Your task to perform on an android device: Search for "alienware area 51" on target, select the first entry, add it to the cart, then select checkout. Image 0: 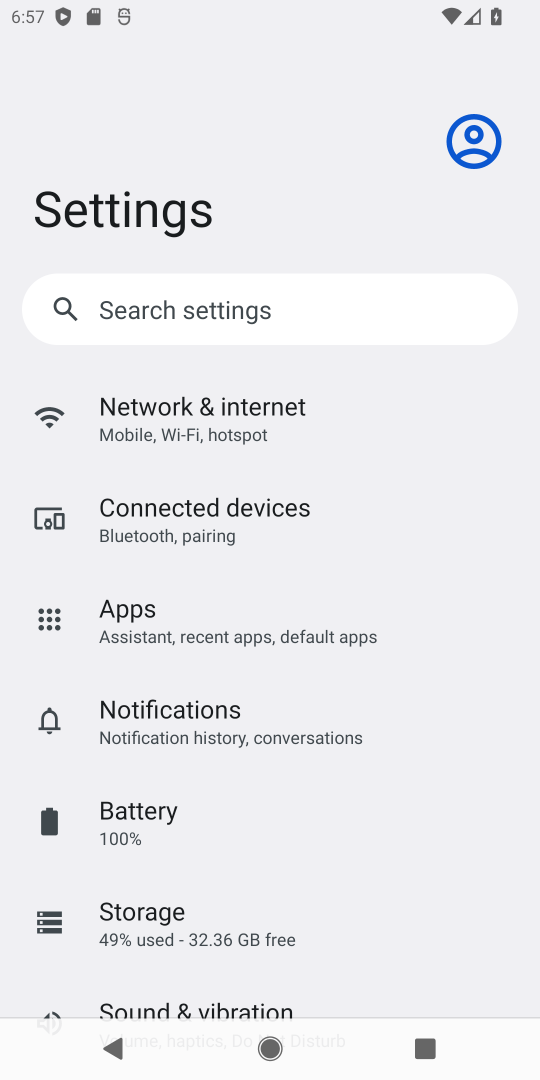
Step 0: press home button
Your task to perform on an android device: Search for "alienware area 51" on target, select the first entry, add it to the cart, then select checkout. Image 1: 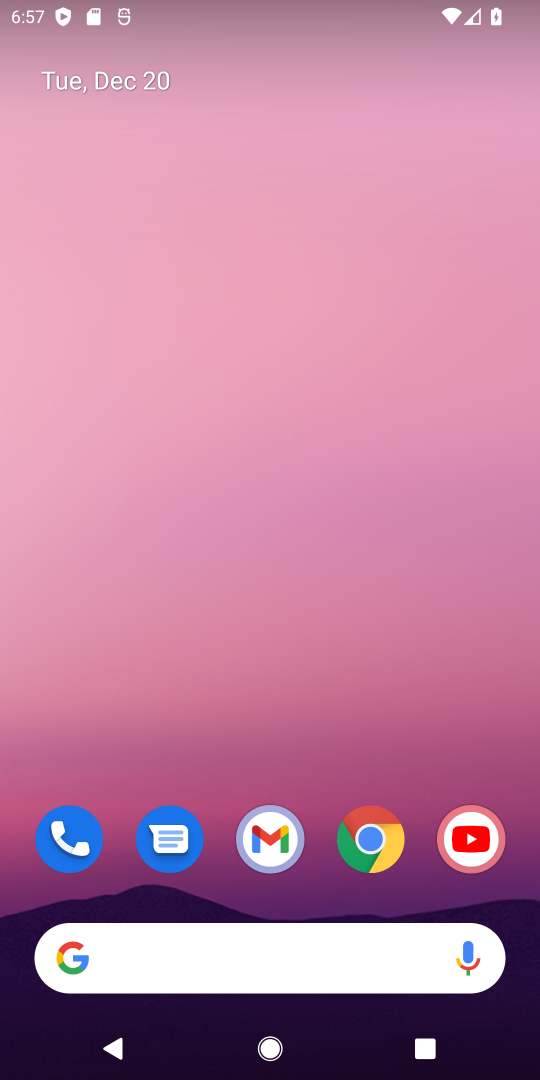
Step 1: click (247, 970)
Your task to perform on an android device: Search for "alienware area 51" on target, select the first entry, add it to the cart, then select checkout. Image 2: 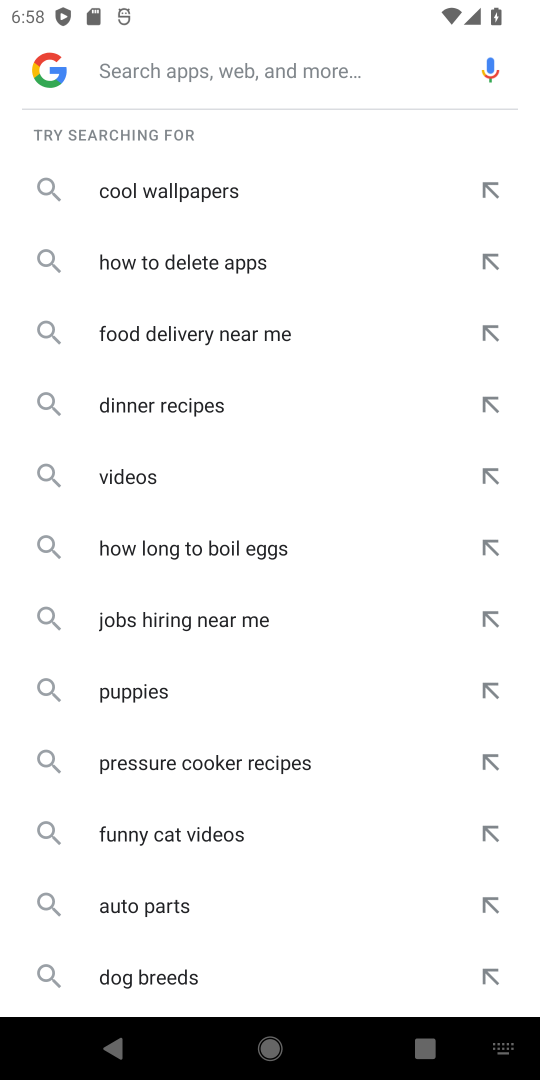
Step 2: press home button
Your task to perform on an android device: Search for "alienware area 51" on target, select the first entry, add it to the cart, then select checkout. Image 3: 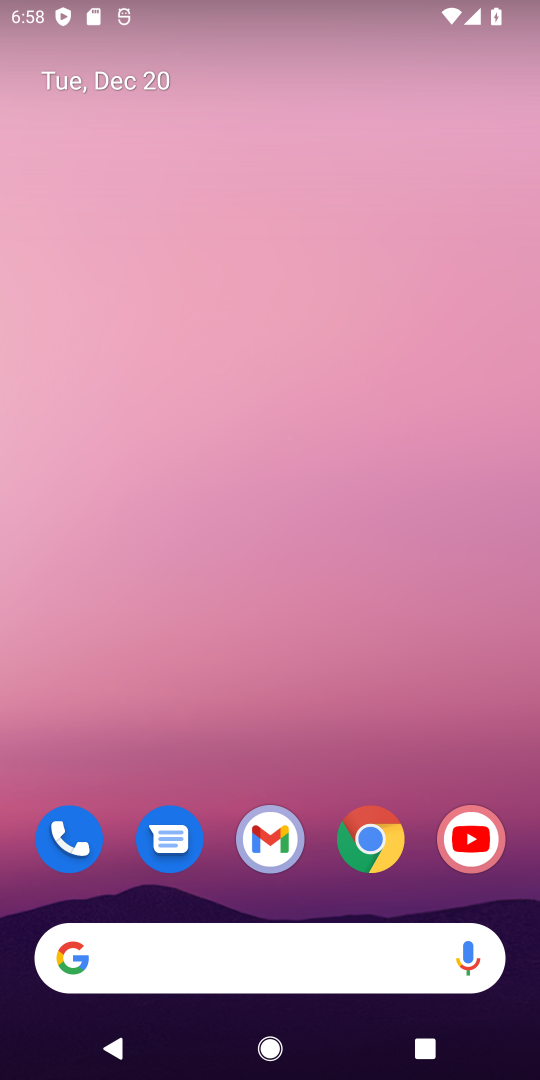
Step 3: drag from (246, 884) to (105, 180)
Your task to perform on an android device: Search for "alienware area 51" on target, select the first entry, add it to the cart, then select checkout. Image 4: 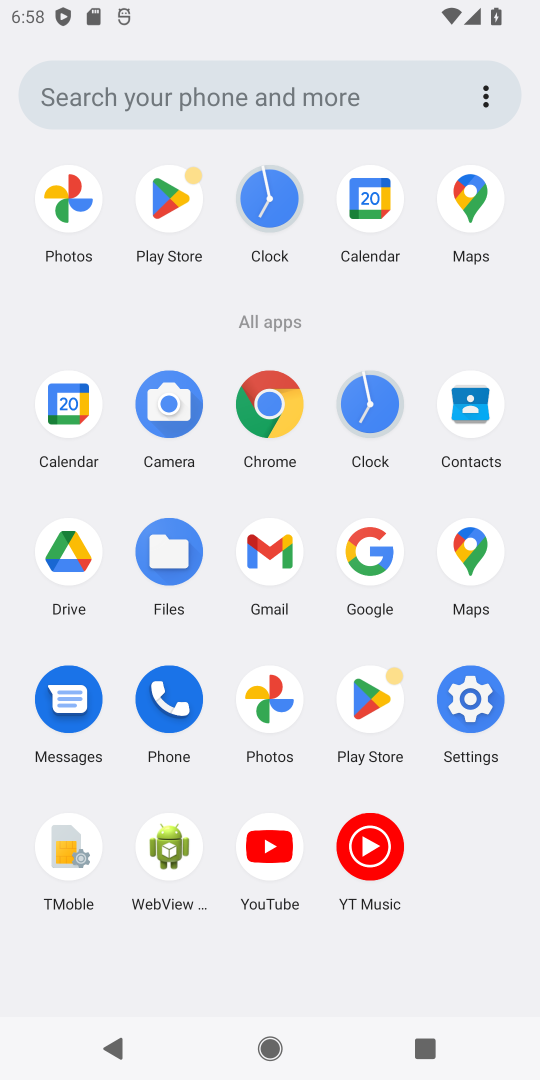
Step 4: click (353, 532)
Your task to perform on an android device: Search for "alienware area 51" on target, select the first entry, add it to the cart, then select checkout. Image 5: 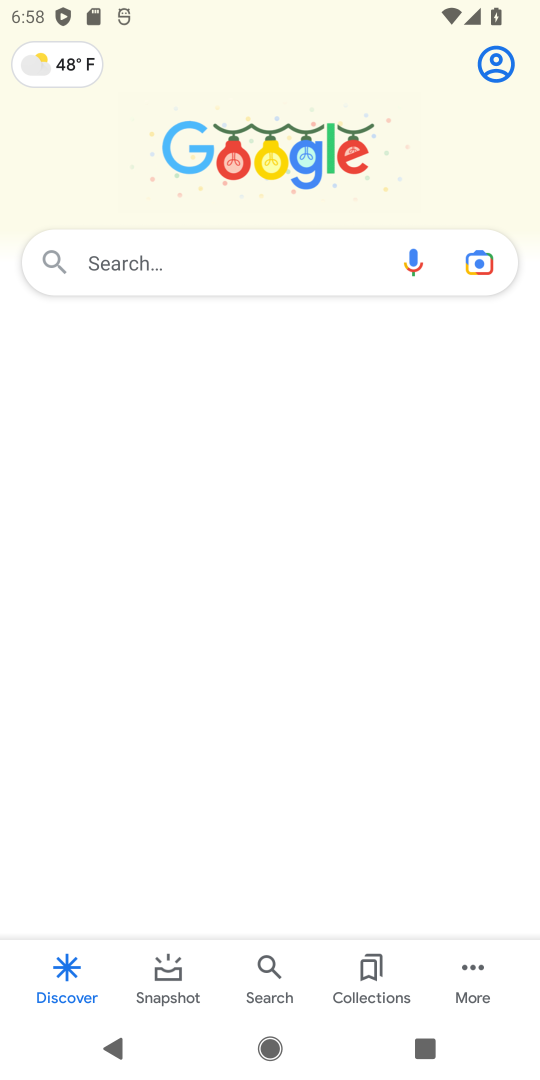
Step 5: click (163, 266)
Your task to perform on an android device: Search for "alienware area 51" on target, select the first entry, add it to the cart, then select checkout. Image 6: 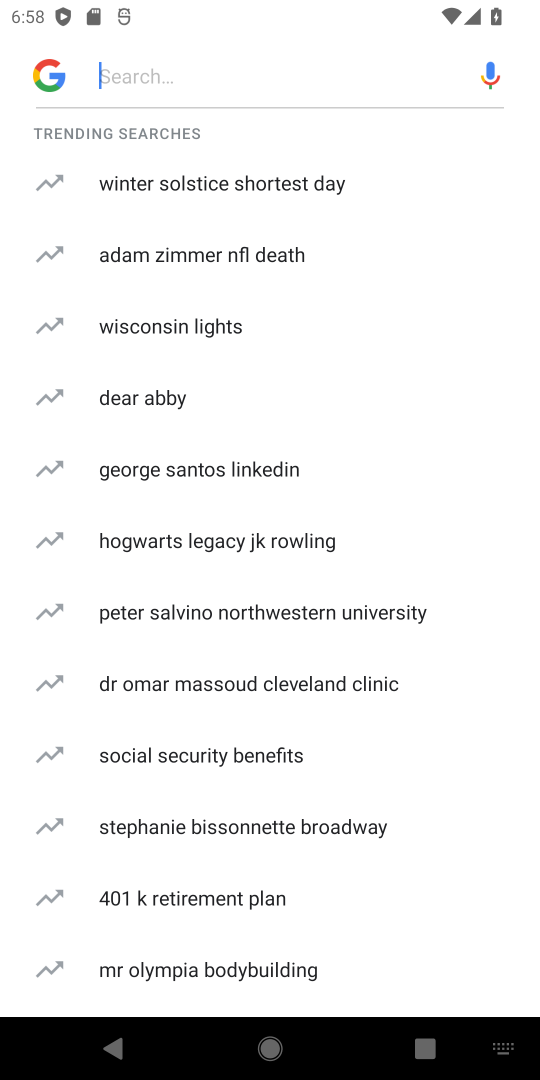
Step 6: type "target"
Your task to perform on an android device: Search for "alienware area 51" on target, select the first entry, add it to the cart, then select checkout. Image 7: 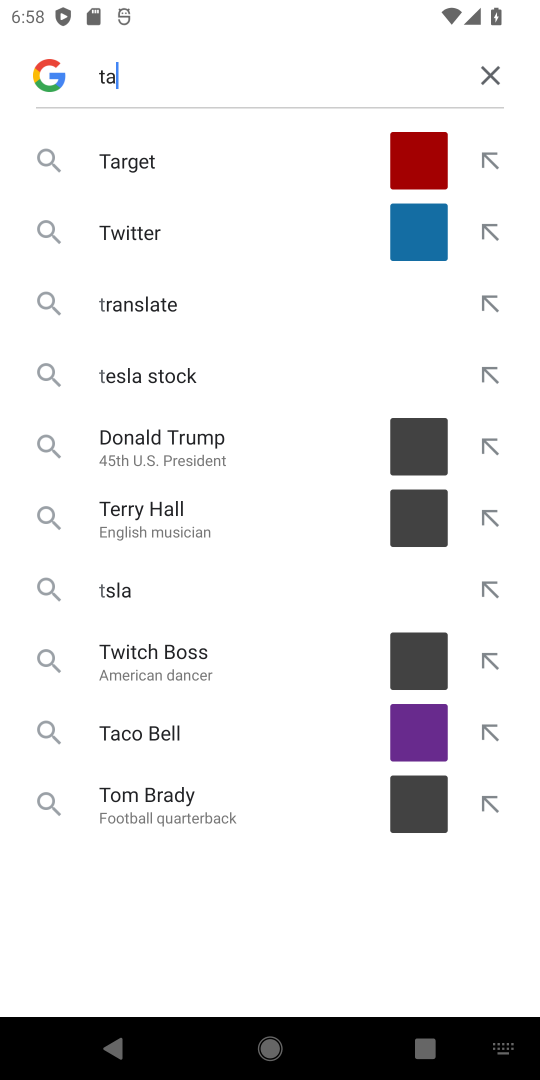
Step 7: type ""
Your task to perform on an android device: Search for "alienware area 51" on target, select the first entry, add it to the cart, then select checkout. Image 8: 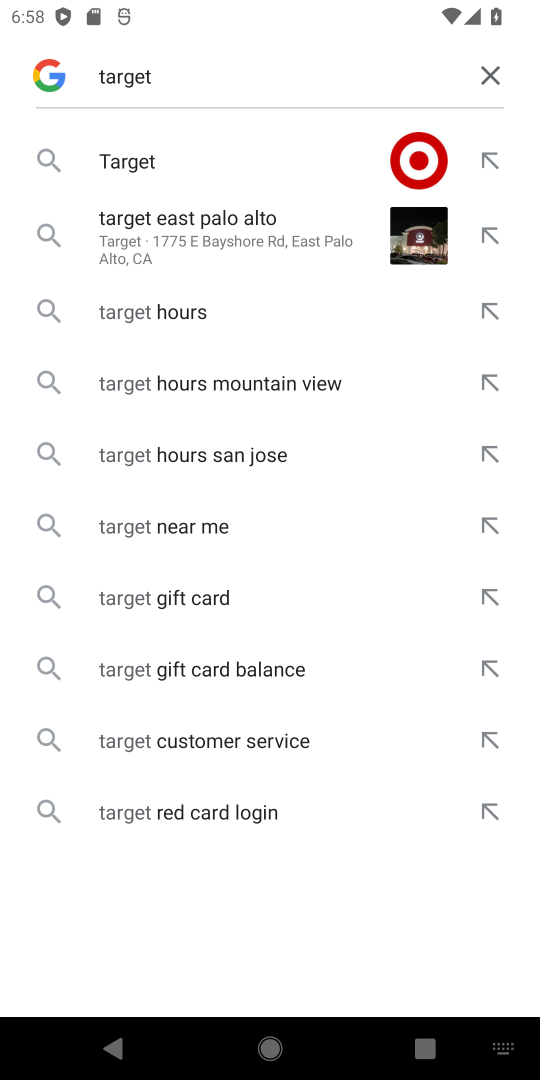
Step 8: click (151, 183)
Your task to perform on an android device: Search for "alienware area 51" on target, select the first entry, add it to the cart, then select checkout. Image 9: 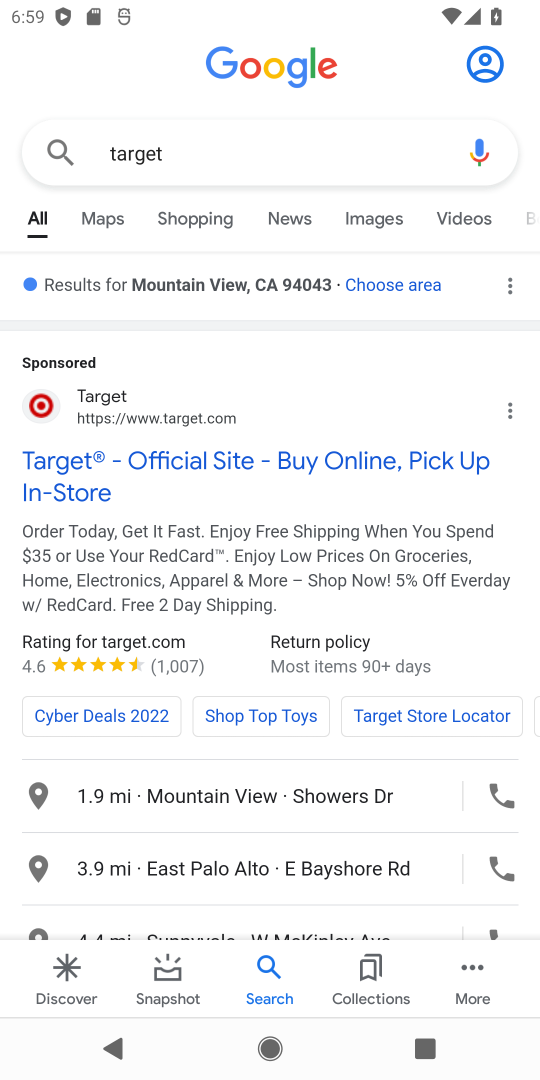
Step 9: click (109, 456)
Your task to perform on an android device: Search for "alienware area 51" on target, select the first entry, add it to the cart, then select checkout. Image 10: 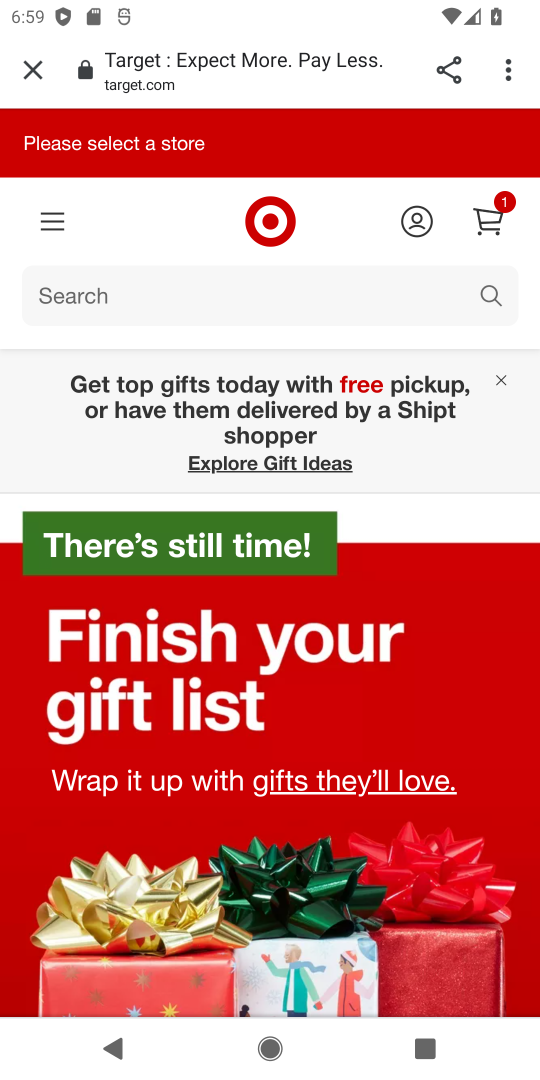
Step 10: click (235, 311)
Your task to perform on an android device: Search for "alienware area 51" on target, select the first entry, add it to the cart, then select checkout. Image 11: 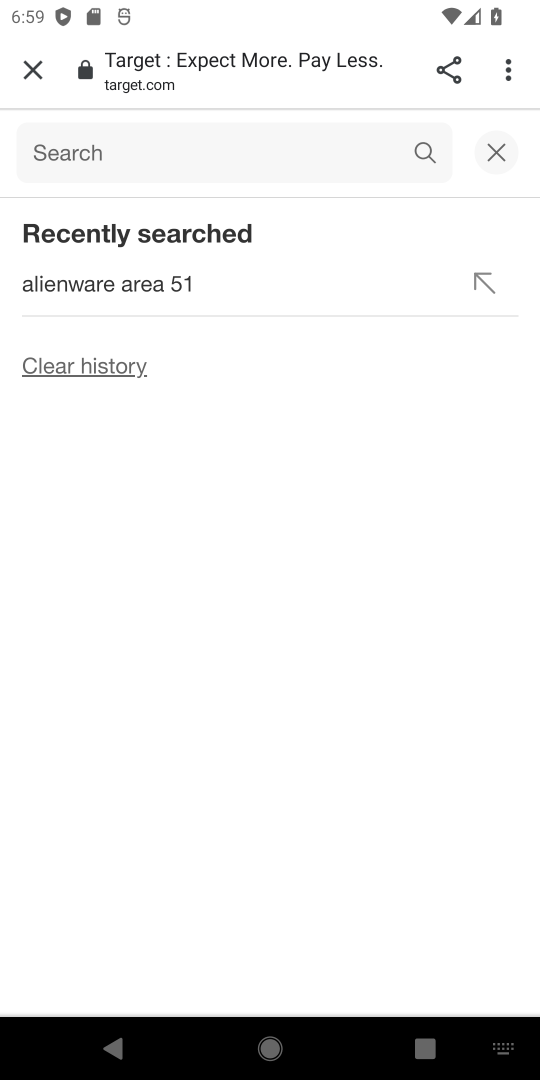
Step 11: type "alienware area 51""
Your task to perform on an android device: Search for "alienware area 51" on target, select the first entry, add it to the cart, then select checkout. Image 12: 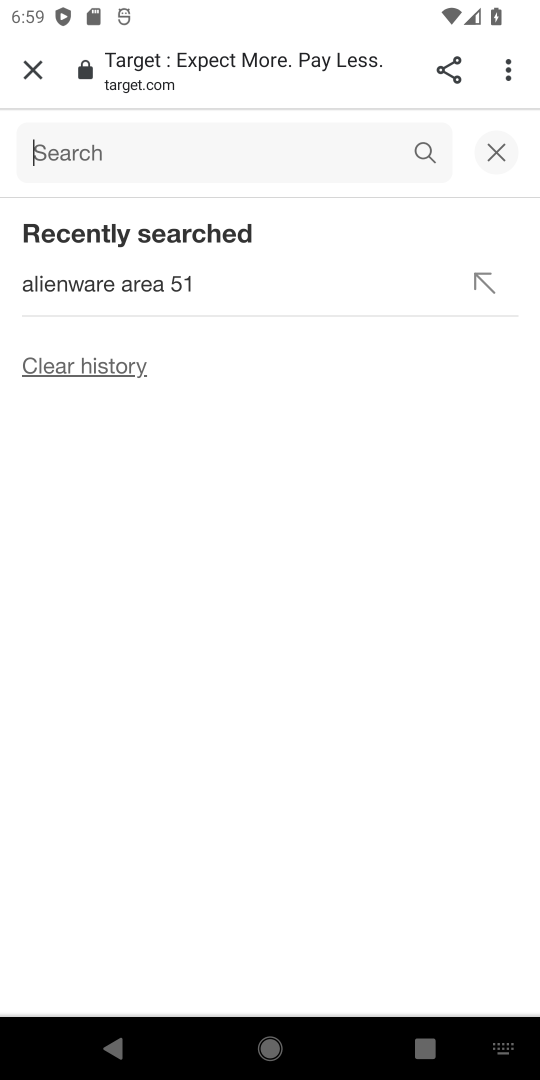
Step 12: type ""
Your task to perform on an android device: Search for "alienware area 51" on target, select the first entry, add it to the cart, then select checkout. Image 13: 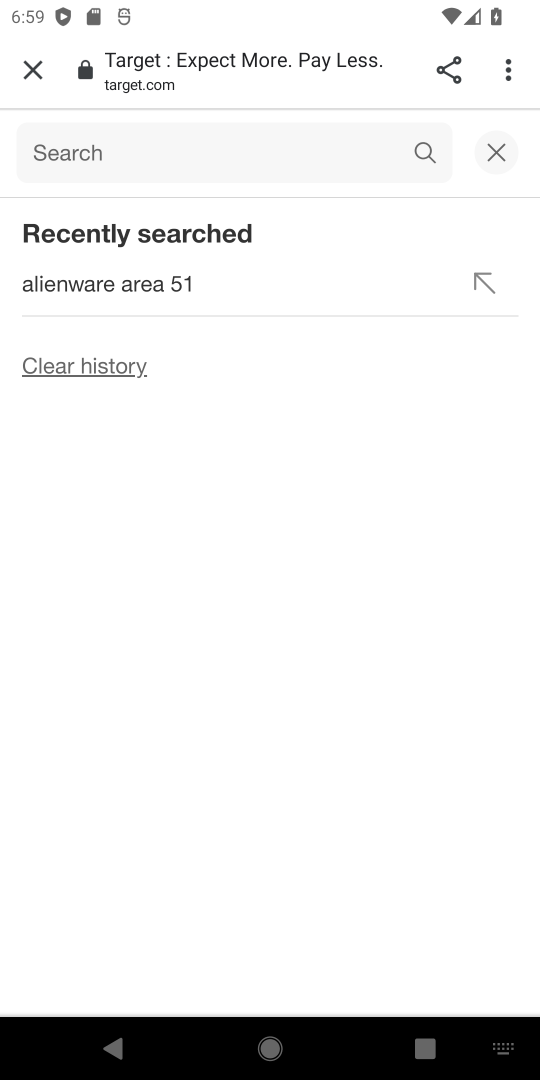
Step 13: click (104, 297)
Your task to perform on an android device: Search for "alienware area 51" on target, select the first entry, add it to the cart, then select checkout. Image 14: 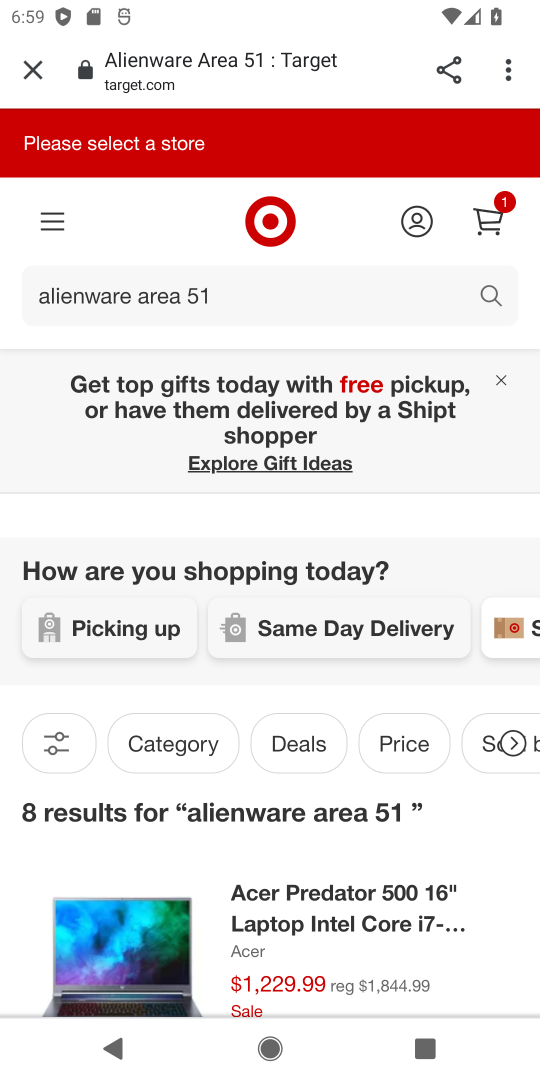
Step 14: drag from (315, 856) to (214, 329)
Your task to perform on an android device: Search for "alienware area 51" on target, select the first entry, add it to the cart, then select checkout. Image 15: 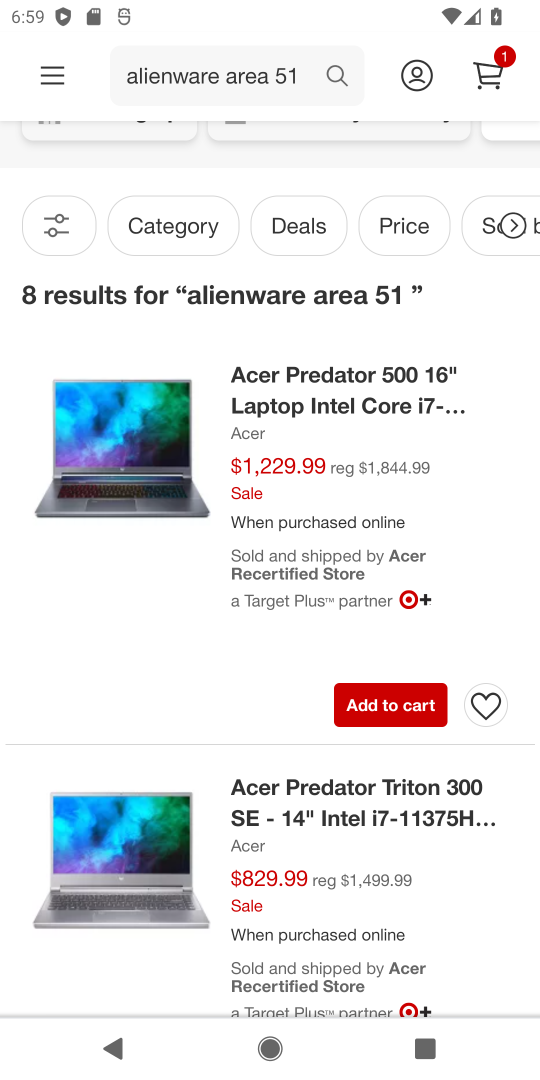
Step 15: click (334, 869)
Your task to perform on an android device: Search for "alienware area 51" on target, select the first entry, add it to the cart, then select checkout. Image 16: 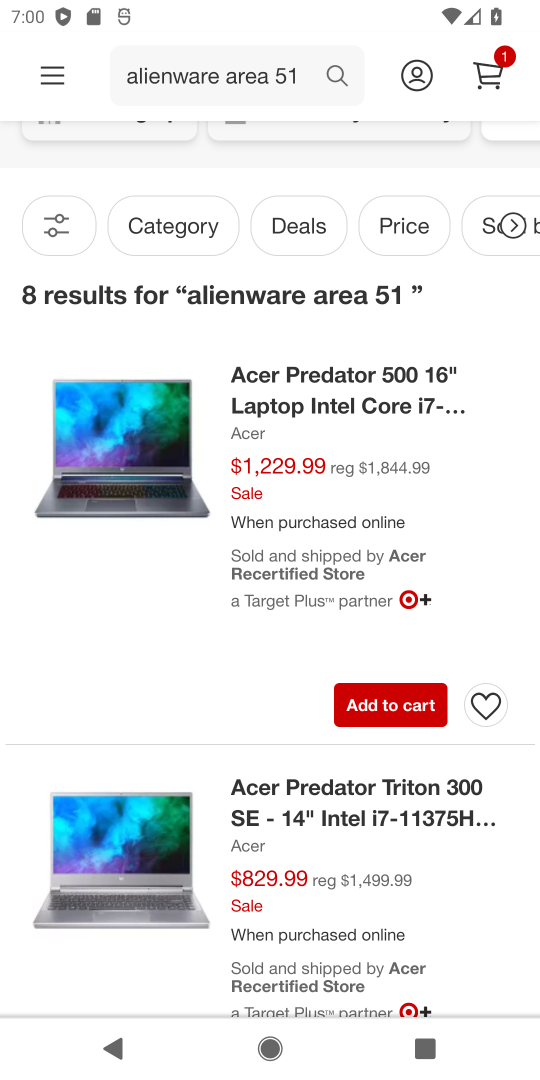
Step 16: click (393, 699)
Your task to perform on an android device: Search for "alienware area 51" on target, select the first entry, add it to the cart, then select checkout. Image 17: 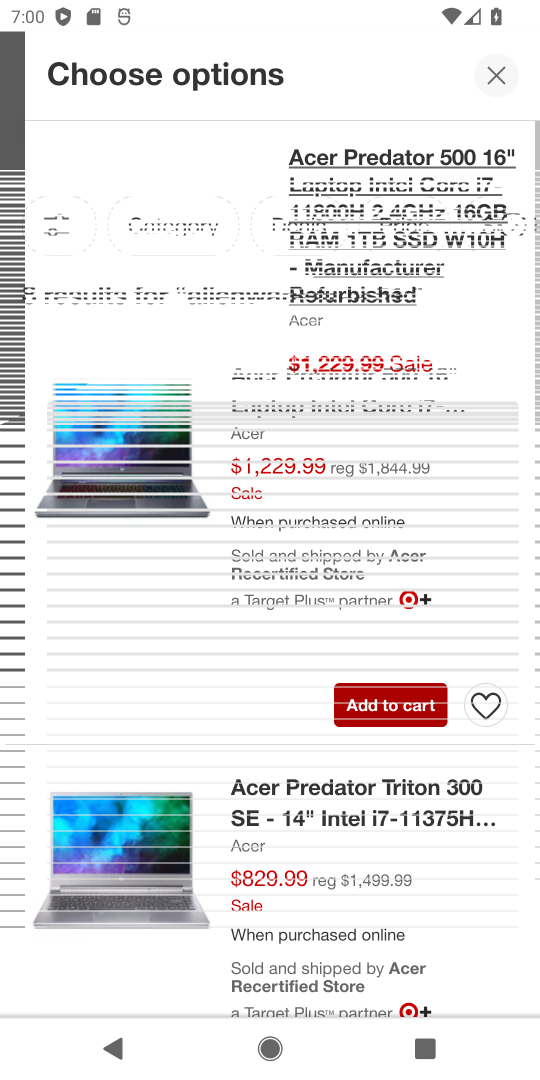
Step 17: click (409, 702)
Your task to perform on an android device: Search for "alienware area 51" on target, select the first entry, add it to the cart, then select checkout. Image 18: 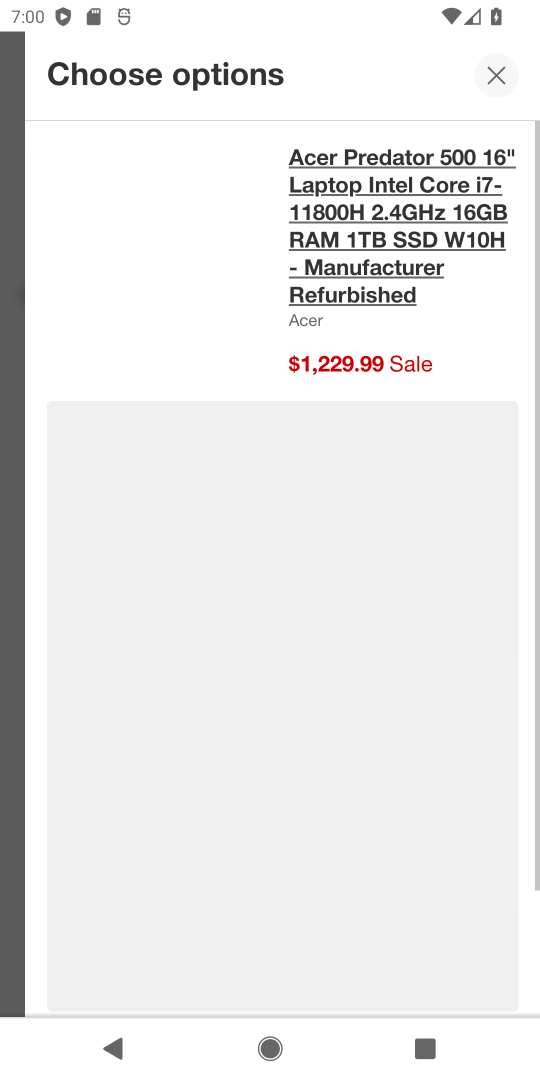
Step 18: click (343, 247)
Your task to perform on an android device: Search for "alienware area 51" on target, select the first entry, add it to the cart, then select checkout. Image 19: 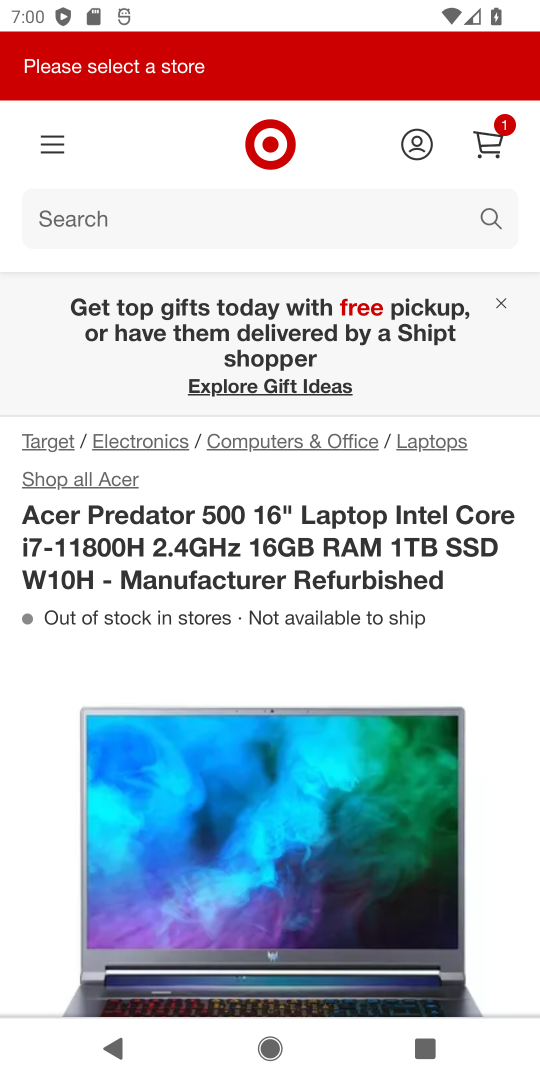
Step 19: click (491, 148)
Your task to perform on an android device: Search for "alienware area 51" on target, select the first entry, add it to the cart, then select checkout. Image 20: 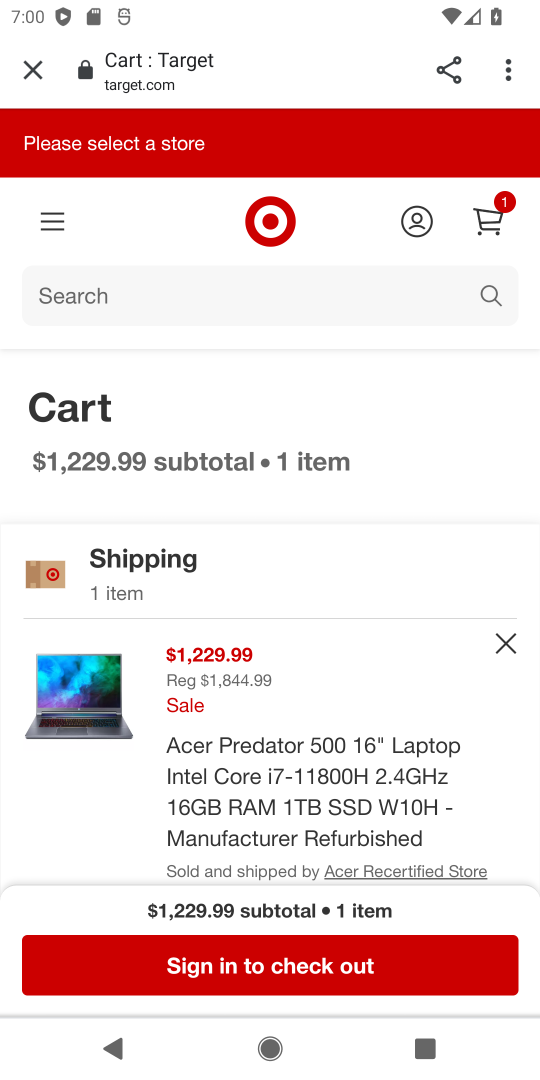
Step 20: click (249, 966)
Your task to perform on an android device: Search for "alienware area 51" on target, select the first entry, add it to the cart, then select checkout. Image 21: 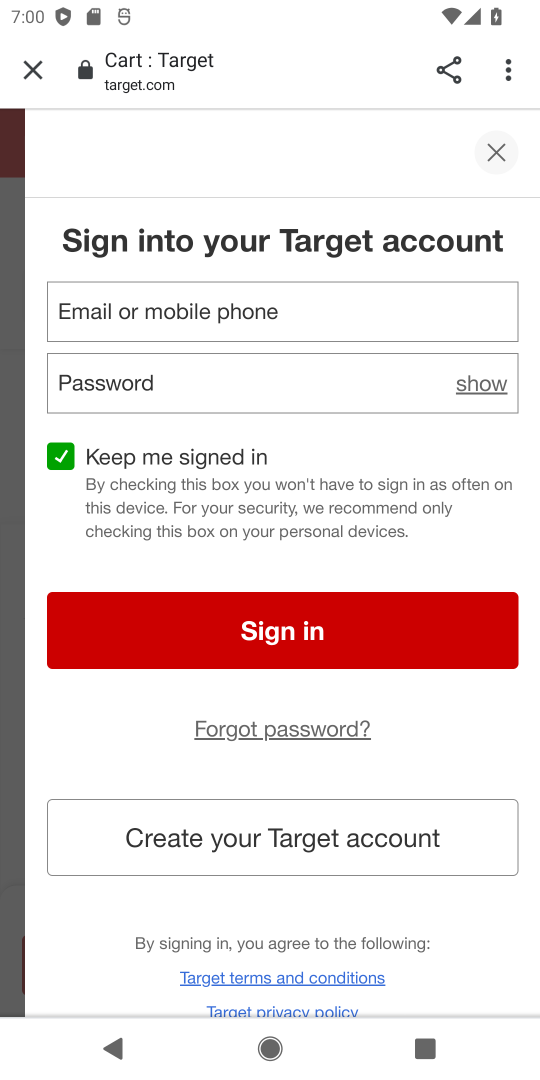
Step 21: task complete